Your task to perform on an android device: open chrome privacy settings Image 0: 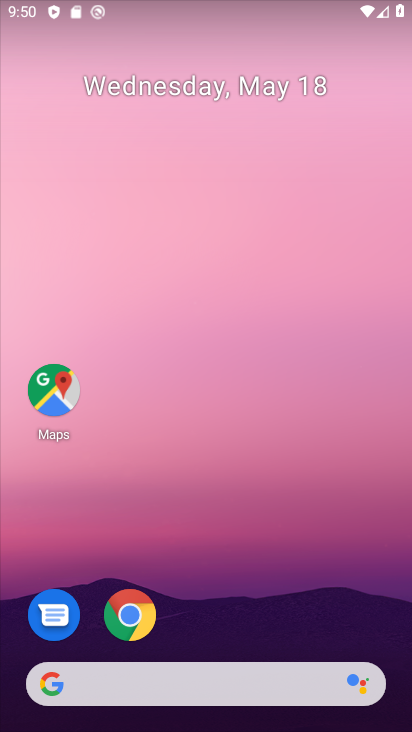
Step 0: click (120, 616)
Your task to perform on an android device: open chrome privacy settings Image 1: 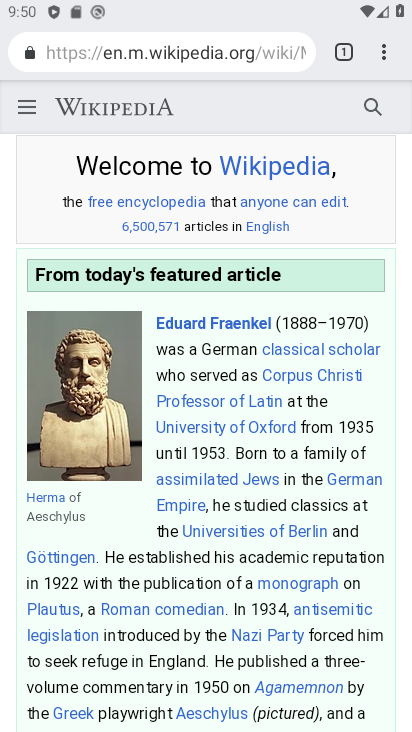
Step 1: click (378, 53)
Your task to perform on an android device: open chrome privacy settings Image 2: 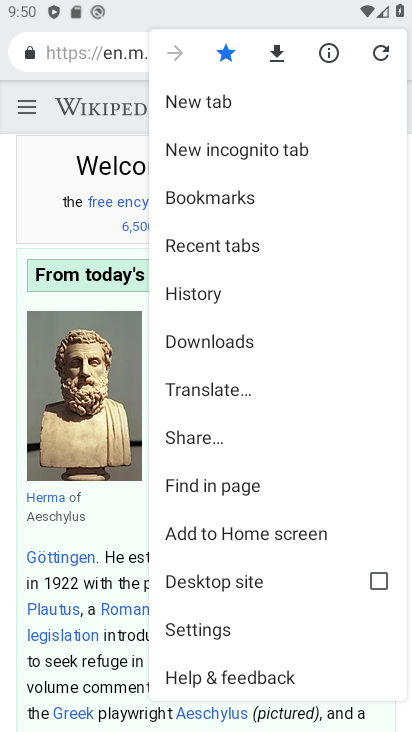
Step 2: click (203, 627)
Your task to perform on an android device: open chrome privacy settings Image 3: 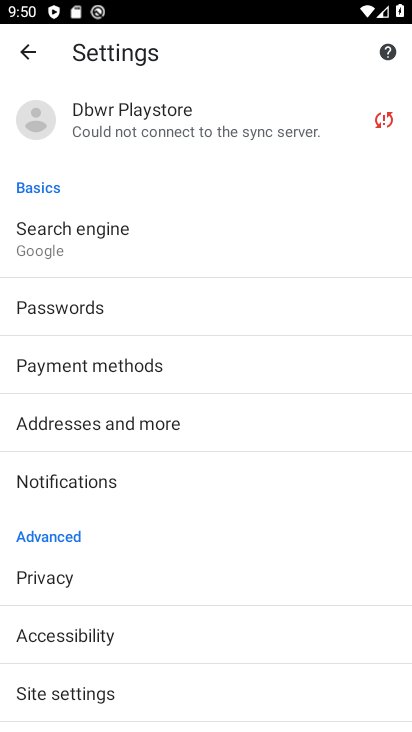
Step 3: click (100, 580)
Your task to perform on an android device: open chrome privacy settings Image 4: 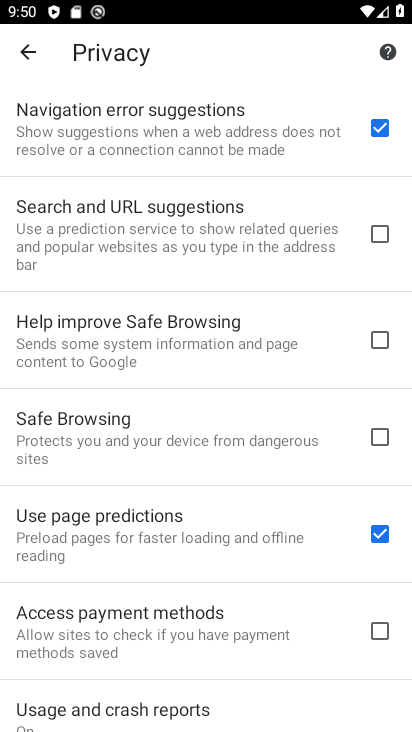
Step 4: task complete